Your task to perform on an android device: manage bookmarks in the chrome app Image 0: 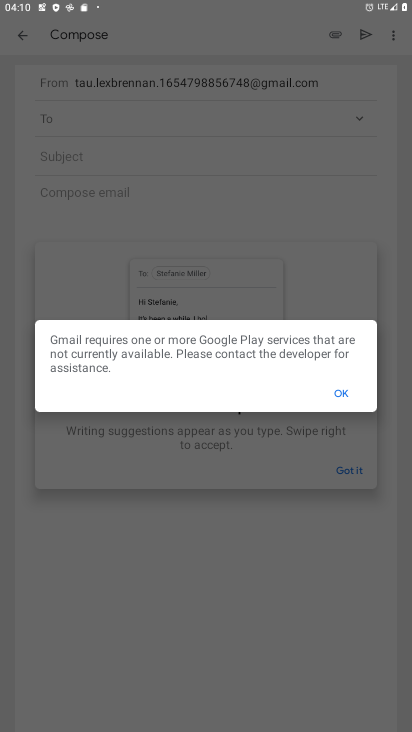
Step 0: press home button
Your task to perform on an android device: manage bookmarks in the chrome app Image 1: 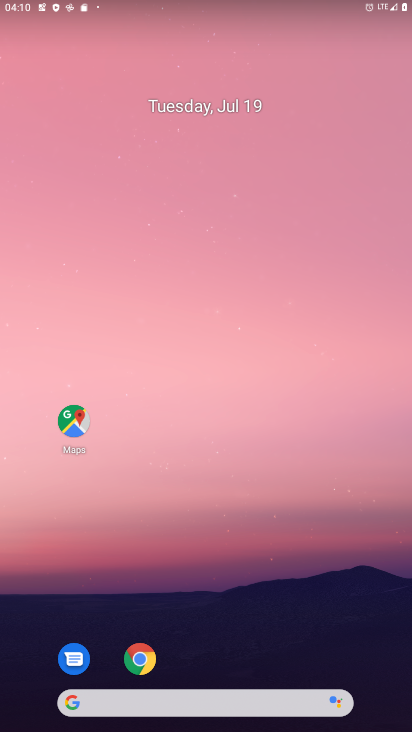
Step 1: click (138, 682)
Your task to perform on an android device: manage bookmarks in the chrome app Image 2: 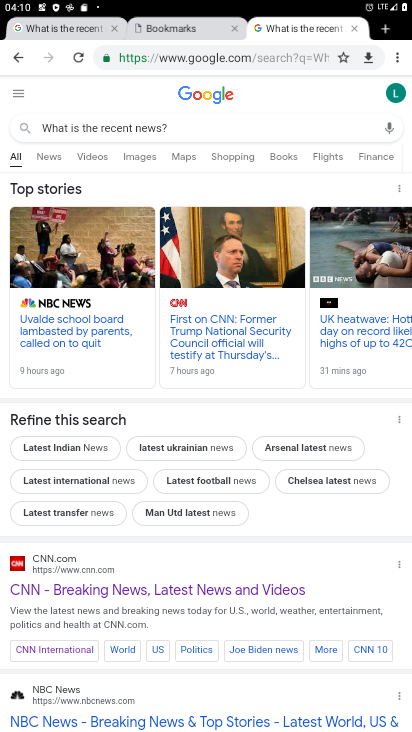
Step 2: drag from (406, 46) to (278, 159)
Your task to perform on an android device: manage bookmarks in the chrome app Image 3: 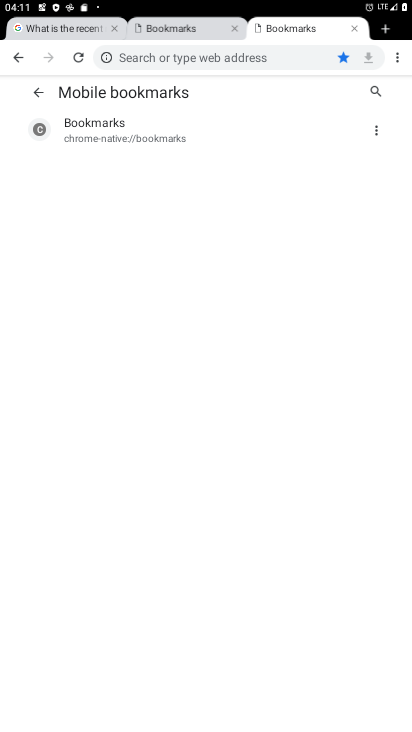
Step 3: click (292, 149)
Your task to perform on an android device: manage bookmarks in the chrome app Image 4: 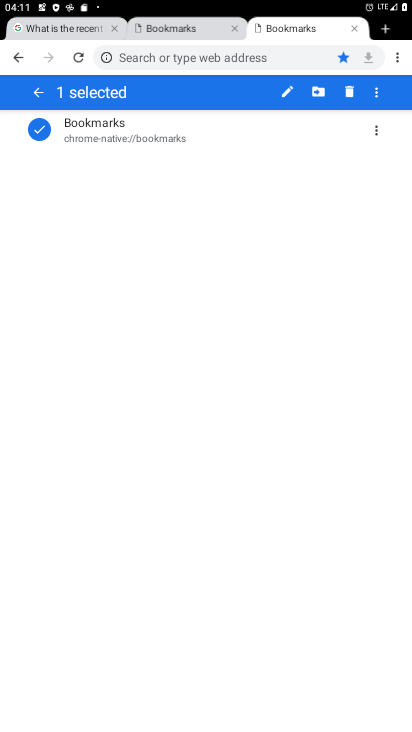
Step 4: click (341, 86)
Your task to perform on an android device: manage bookmarks in the chrome app Image 5: 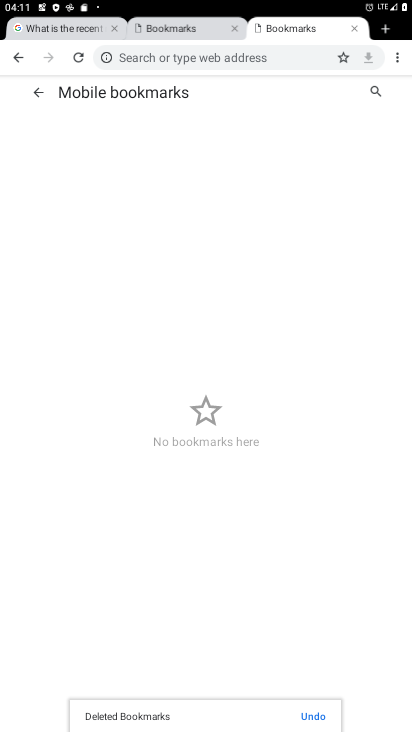
Step 5: task complete